Your task to perform on an android device: toggle improve location accuracy Image 0: 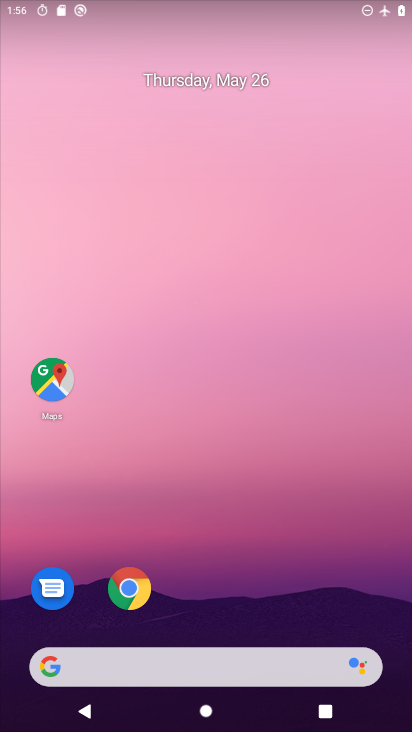
Step 0: drag from (389, 675) to (337, 243)
Your task to perform on an android device: toggle improve location accuracy Image 1: 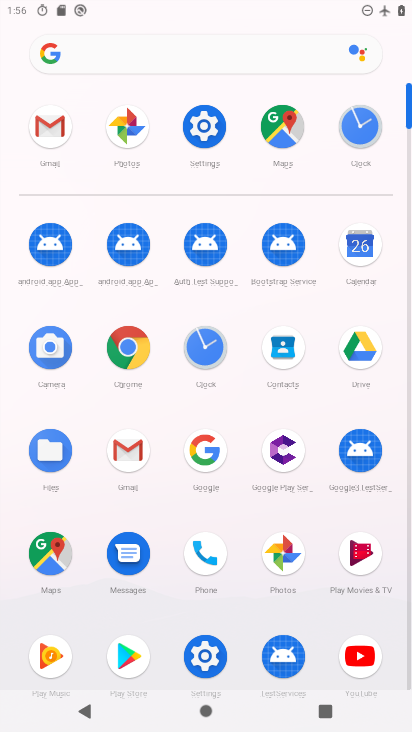
Step 1: click (198, 126)
Your task to perform on an android device: toggle improve location accuracy Image 2: 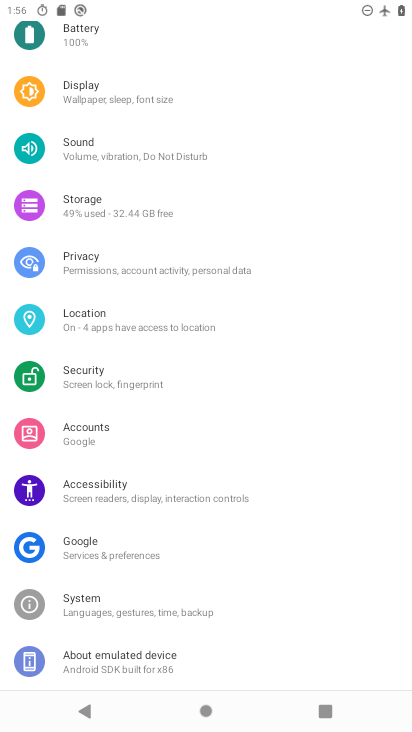
Step 2: click (73, 317)
Your task to perform on an android device: toggle improve location accuracy Image 3: 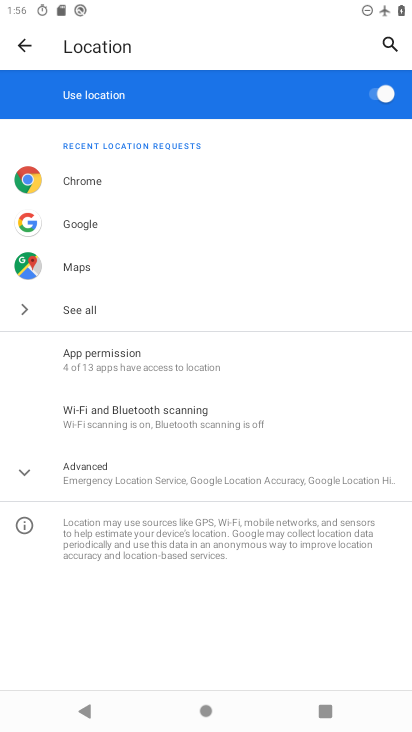
Step 3: click (36, 473)
Your task to perform on an android device: toggle improve location accuracy Image 4: 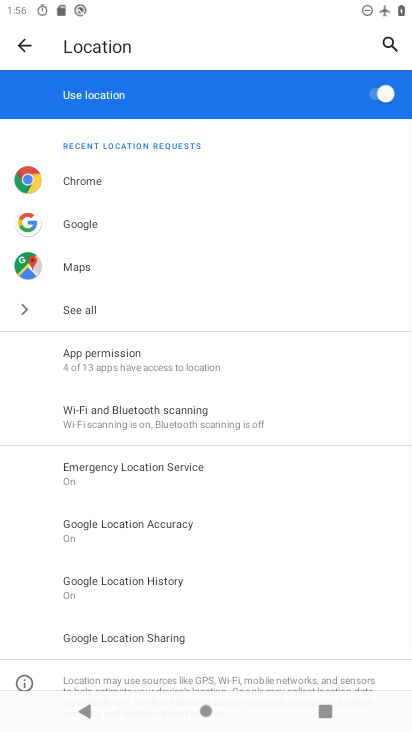
Step 4: drag from (269, 645) to (290, 381)
Your task to perform on an android device: toggle improve location accuracy Image 5: 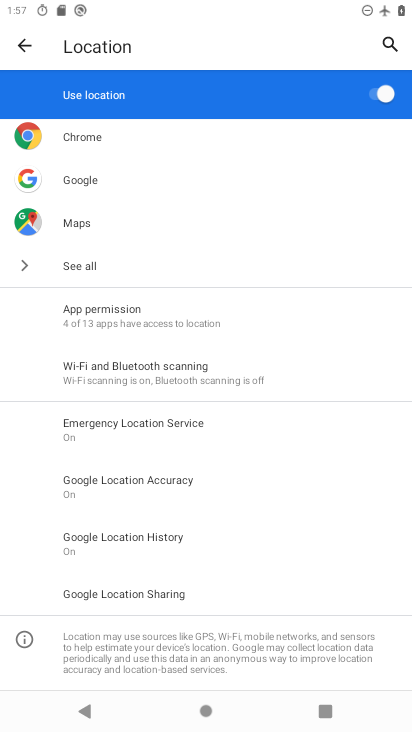
Step 5: click (119, 476)
Your task to perform on an android device: toggle improve location accuracy Image 6: 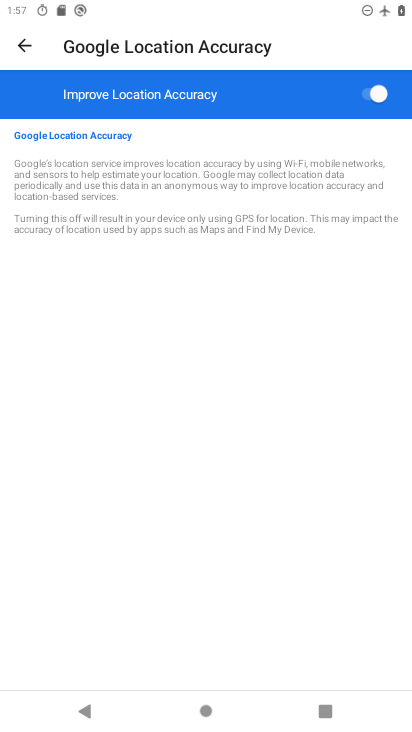
Step 6: click (360, 90)
Your task to perform on an android device: toggle improve location accuracy Image 7: 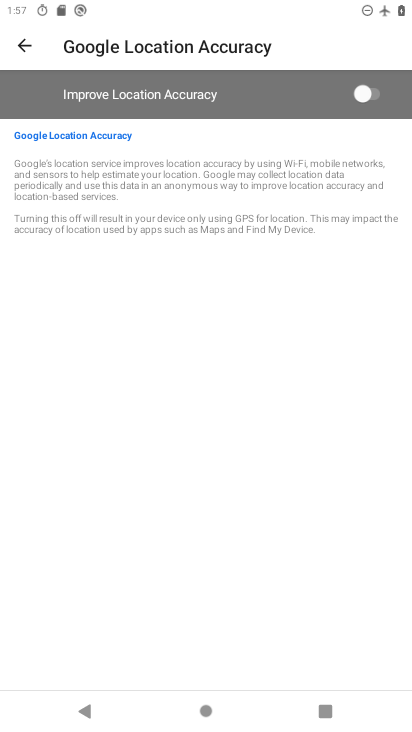
Step 7: task complete